Your task to perform on an android device: Find coffee shops on Maps Image 0: 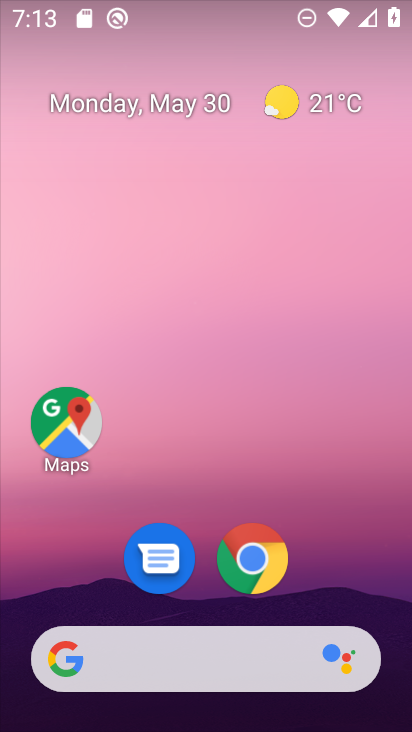
Step 0: click (72, 427)
Your task to perform on an android device: Find coffee shops on Maps Image 1: 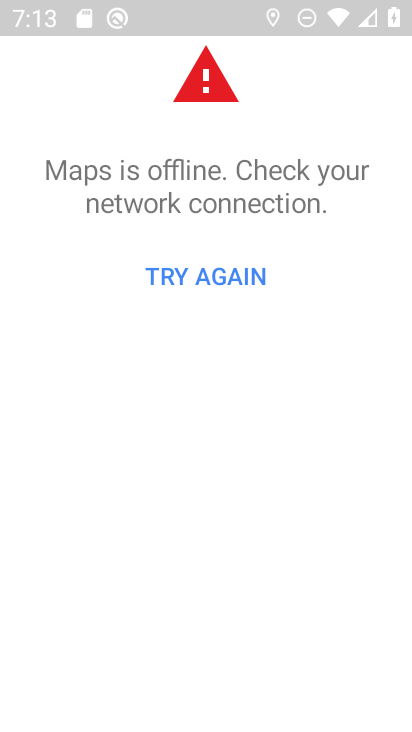
Step 1: click (214, 272)
Your task to perform on an android device: Find coffee shops on Maps Image 2: 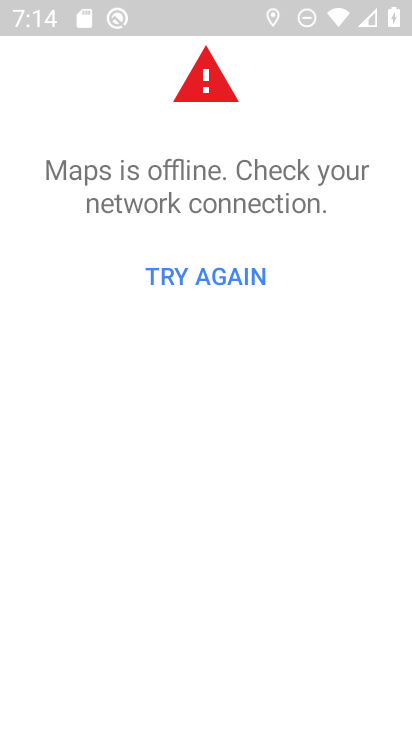
Step 2: click (214, 272)
Your task to perform on an android device: Find coffee shops on Maps Image 3: 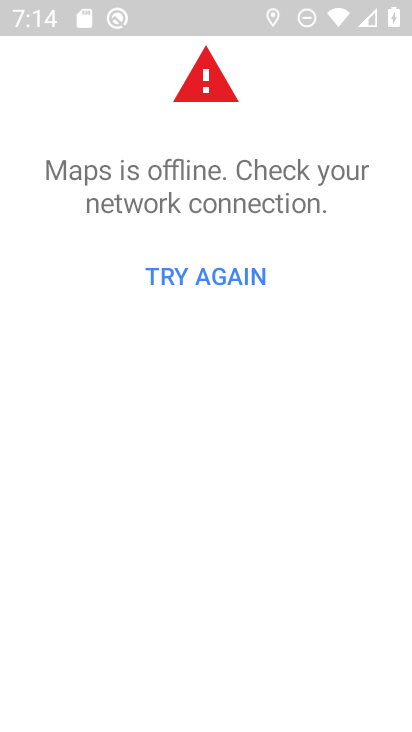
Step 3: task complete